Your task to perform on an android device: Open Reddit.com Image 0: 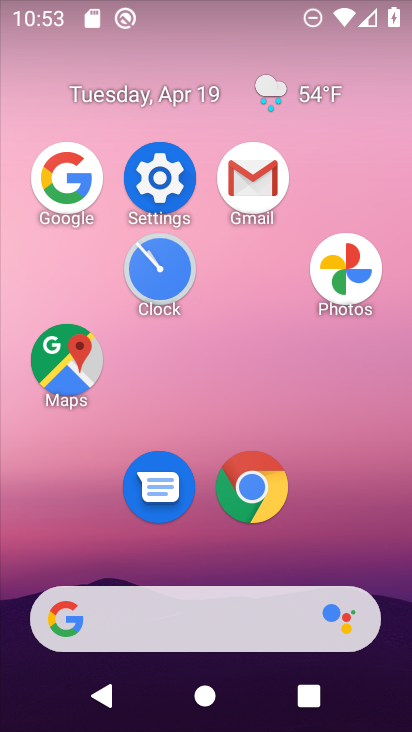
Step 0: click (244, 464)
Your task to perform on an android device: Open Reddit.com Image 1: 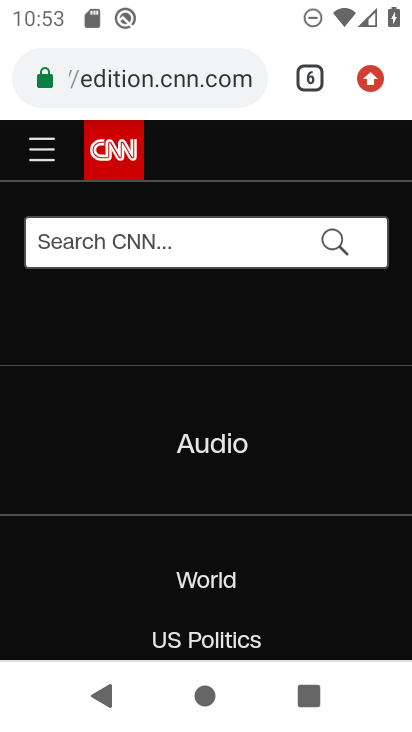
Step 1: click (314, 71)
Your task to perform on an android device: Open Reddit.com Image 2: 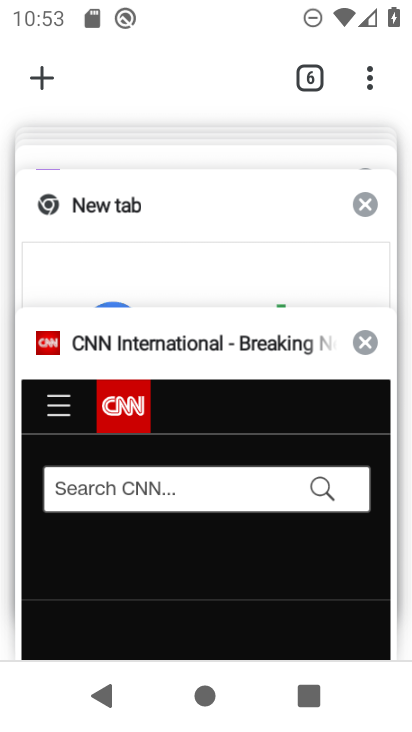
Step 2: click (29, 82)
Your task to perform on an android device: Open Reddit.com Image 3: 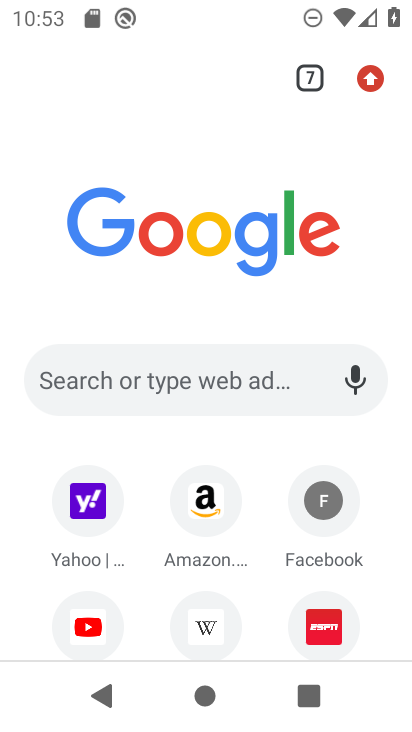
Step 3: click (112, 363)
Your task to perform on an android device: Open Reddit.com Image 4: 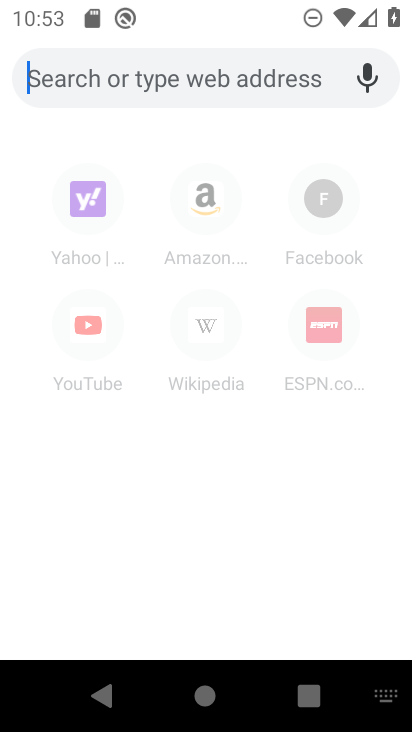
Step 4: type "reddit"
Your task to perform on an android device: Open Reddit.com Image 5: 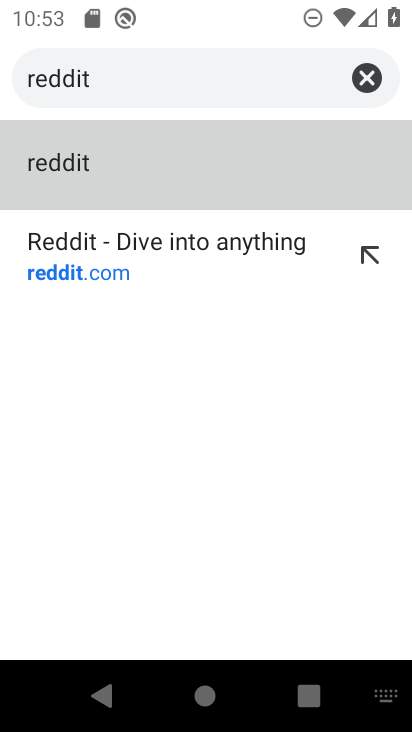
Step 5: click (61, 281)
Your task to perform on an android device: Open Reddit.com Image 6: 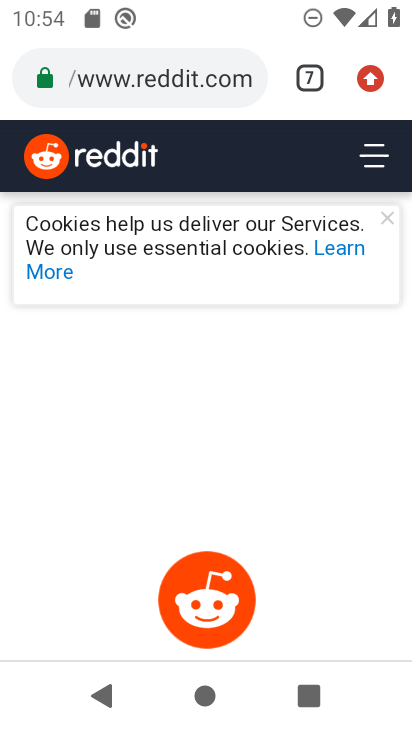
Step 6: task complete